Your task to perform on an android device: Go to privacy settings Image 0: 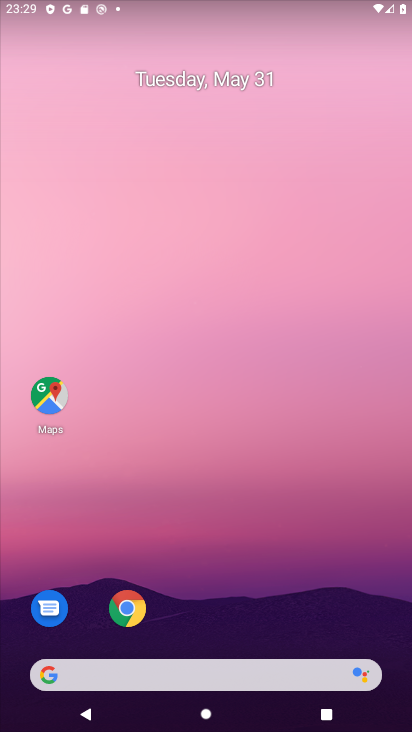
Step 0: drag from (379, 614) to (291, 18)
Your task to perform on an android device: Go to privacy settings Image 1: 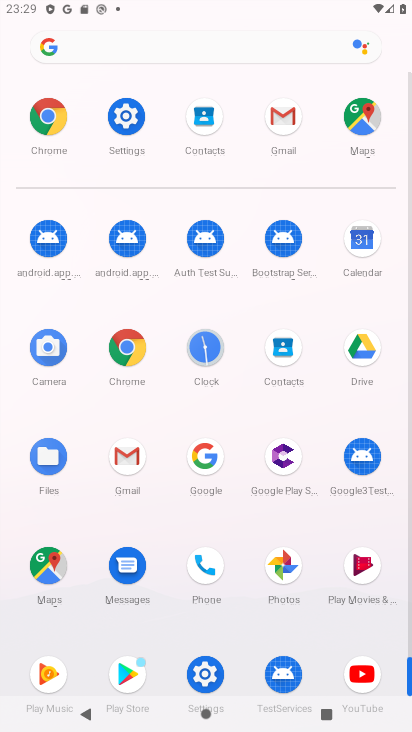
Step 1: click (113, 148)
Your task to perform on an android device: Go to privacy settings Image 2: 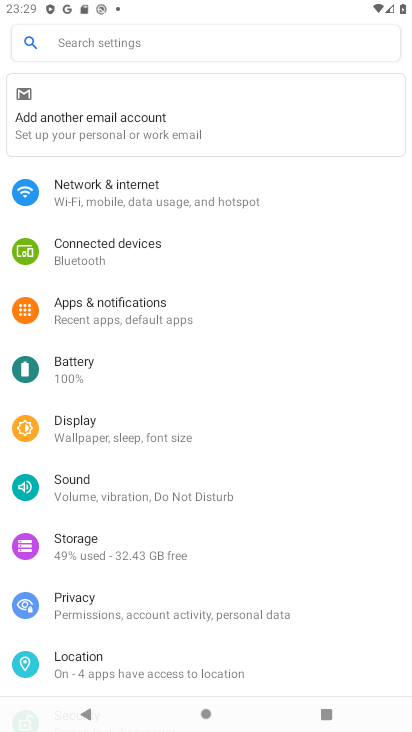
Step 2: click (123, 609)
Your task to perform on an android device: Go to privacy settings Image 3: 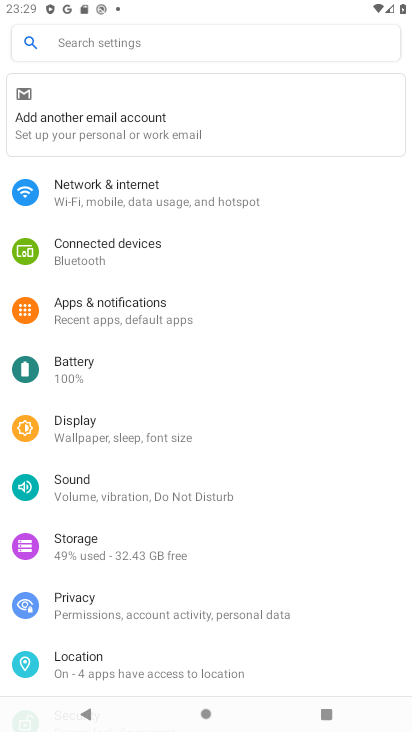
Step 3: click (26, 611)
Your task to perform on an android device: Go to privacy settings Image 4: 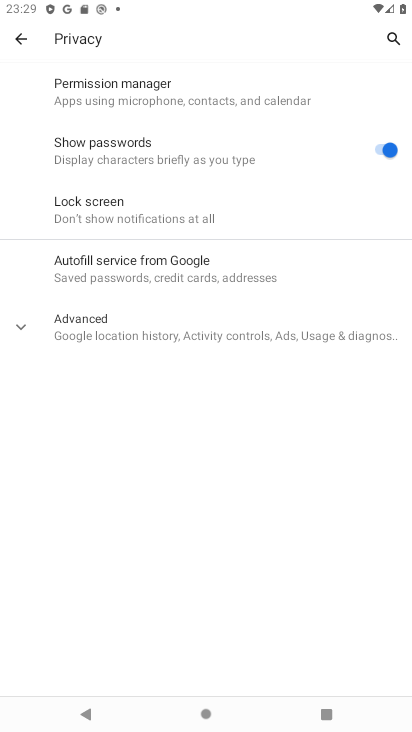
Step 4: task complete